Your task to perform on an android device: Open Chrome and go to the settings page Image 0: 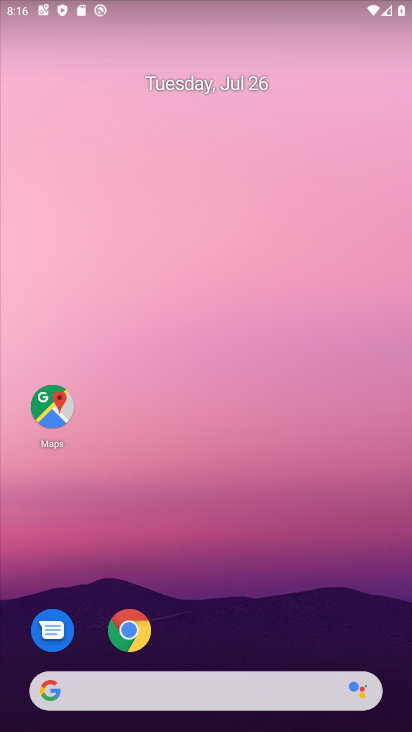
Step 0: click (123, 643)
Your task to perform on an android device: Open Chrome and go to the settings page Image 1: 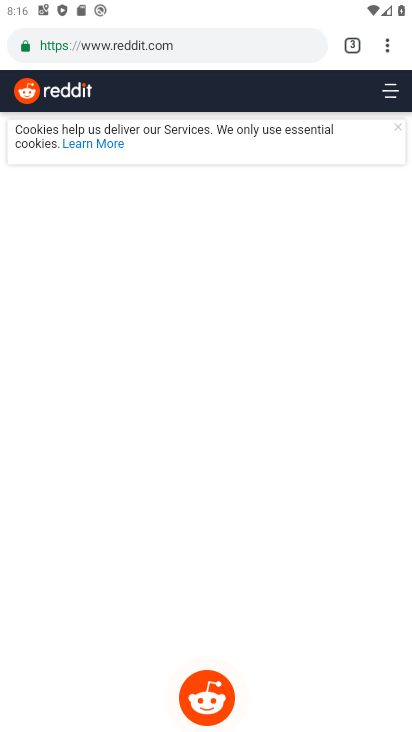
Step 1: click (387, 46)
Your task to perform on an android device: Open Chrome and go to the settings page Image 2: 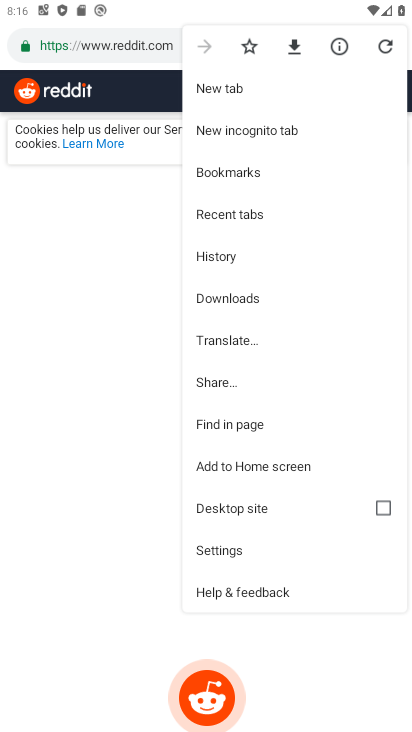
Step 2: click (231, 546)
Your task to perform on an android device: Open Chrome and go to the settings page Image 3: 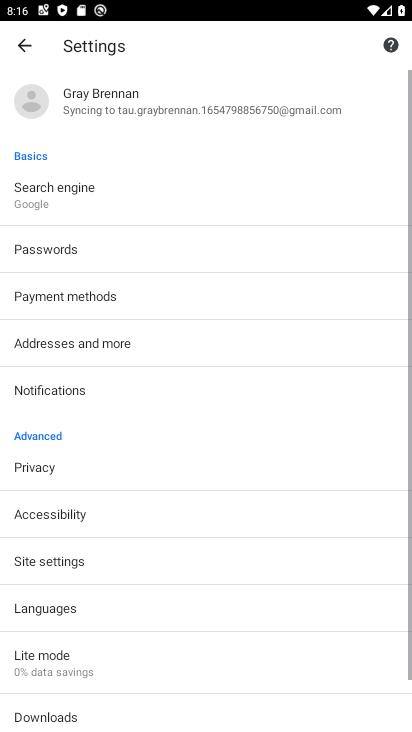
Step 3: task complete